Your task to perform on an android device: show emergency info Image 0: 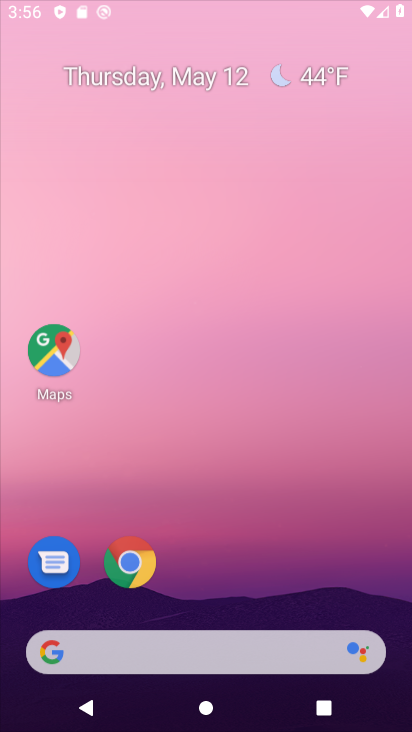
Step 0: click (307, 114)
Your task to perform on an android device: show emergency info Image 1: 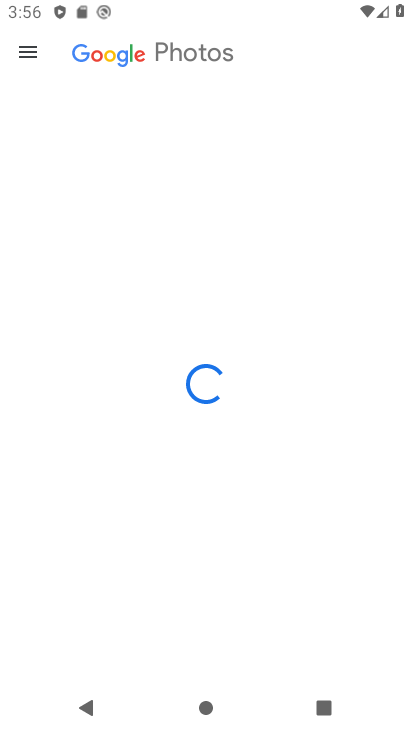
Step 1: press home button
Your task to perform on an android device: show emergency info Image 2: 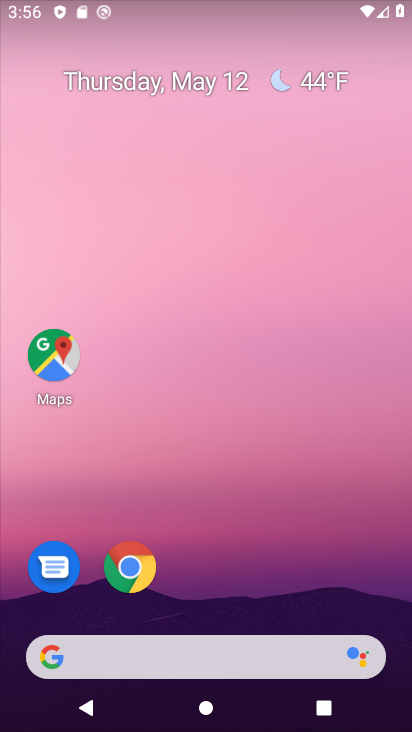
Step 2: drag from (187, 636) to (276, 130)
Your task to perform on an android device: show emergency info Image 3: 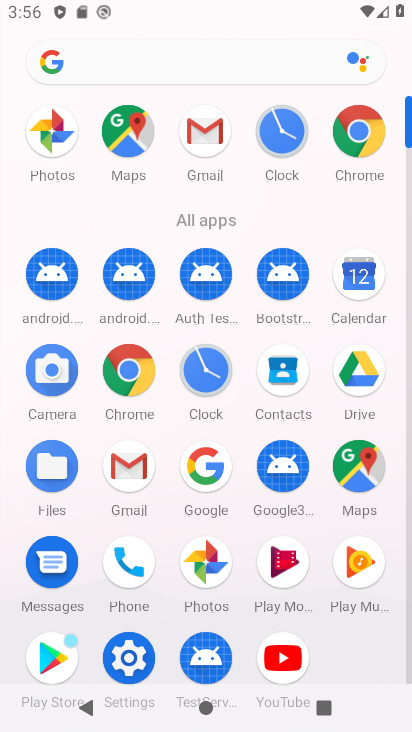
Step 3: drag from (170, 627) to (197, 469)
Your task to perform on an android device: show emergency info Image 4: 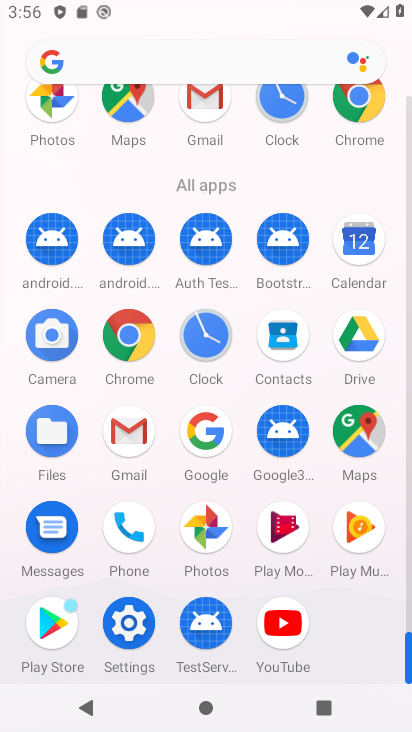
Step 4: click (135, 619)
Your task to perform on an android device: show emergency info Image 5: 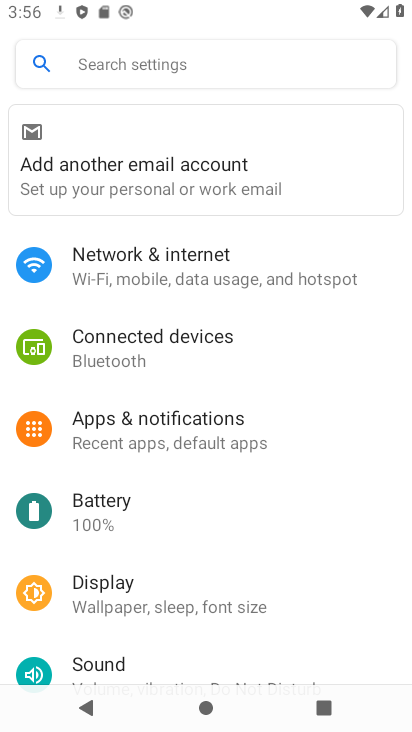
Step 5: drag from (176, 583) to (301, 134)
Your task to perform on an android device: show emergency info Image 6: 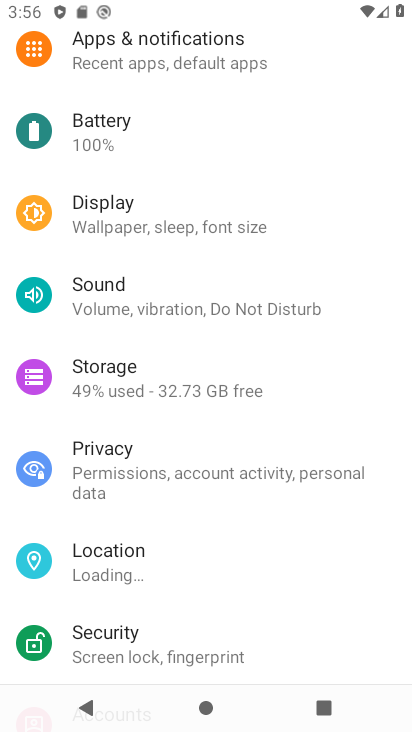
Step 6: drag from (193, 614) to (295, 62)
Your task to perform on an android device: show emergency info Image 7: 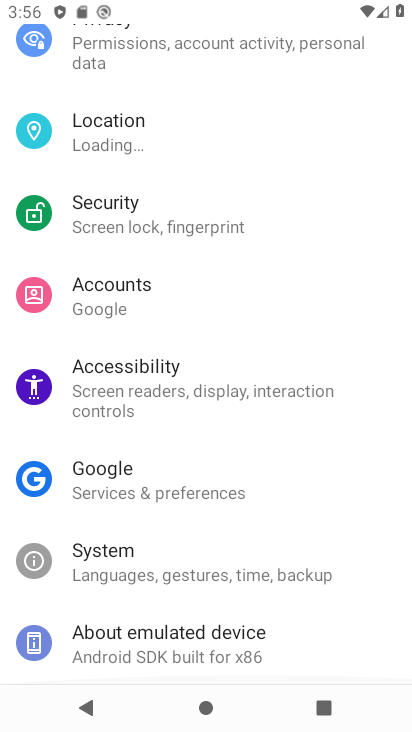
Step 7: drag from (201, 596) to (280, 158)
Your task to perform on an android device: show emergency info Image 8: 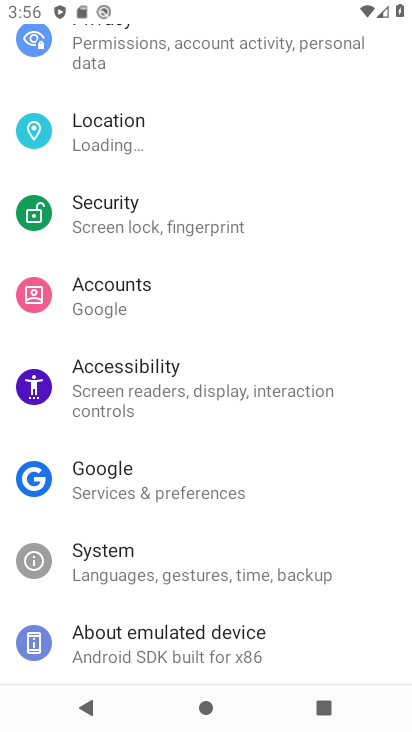
Step 8: click (192, 658)
Your task to perform on an android device: show emergency info Image 9: 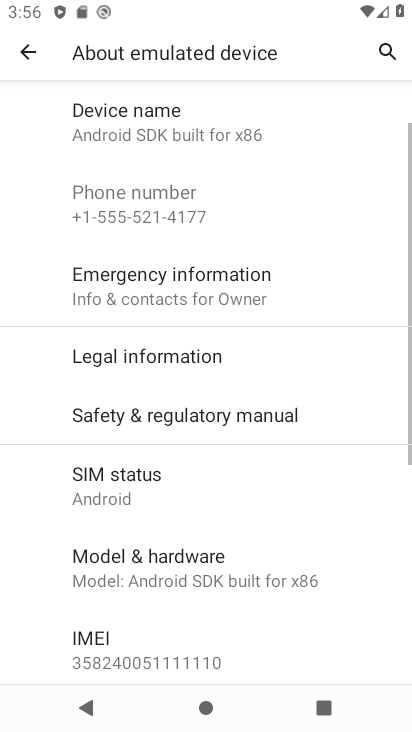
Step 9: drag from (193, 656) to (244, 598)
Your task to perform on an android device: show emergency info Image 10: 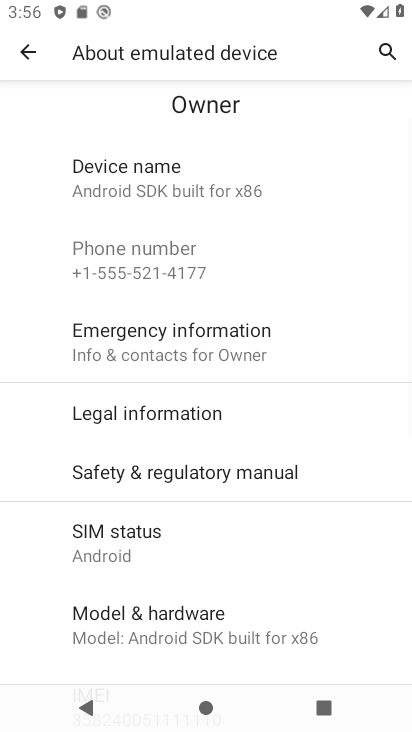
Step 10: click (205, 352)
Your task to perform on an android device: show emergency info Image 11: 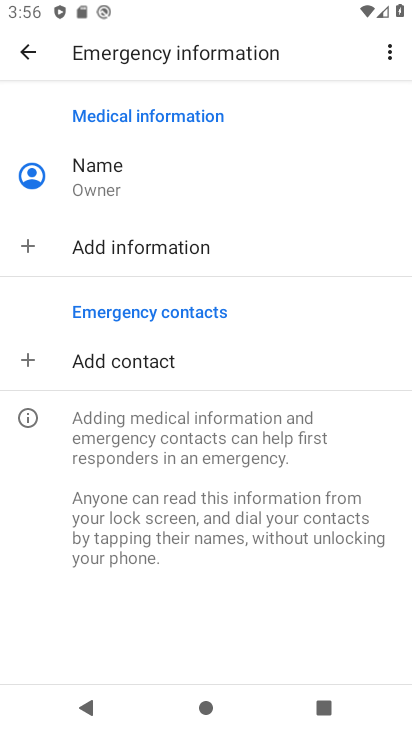
Step 11: task complete